Your task to perform on an android device: see tabs open on other devices in the chrome app Image 0: 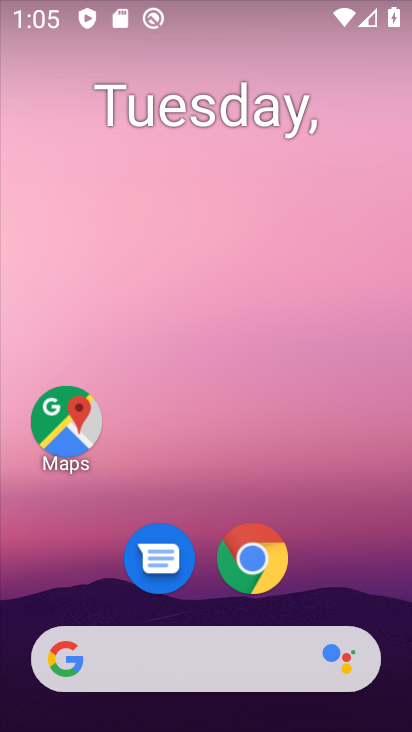
Step 0: click (261, 555)
Your task to perform on an android device: see tabs open on other devices in the chrome app Image 1: 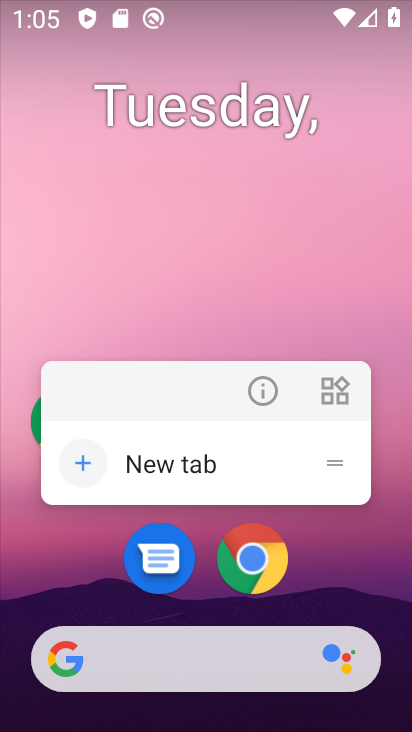
Step 1: click (265, 559)
Your task to perform on an android device: see tabs open on other devices in the chrome app Image 2: 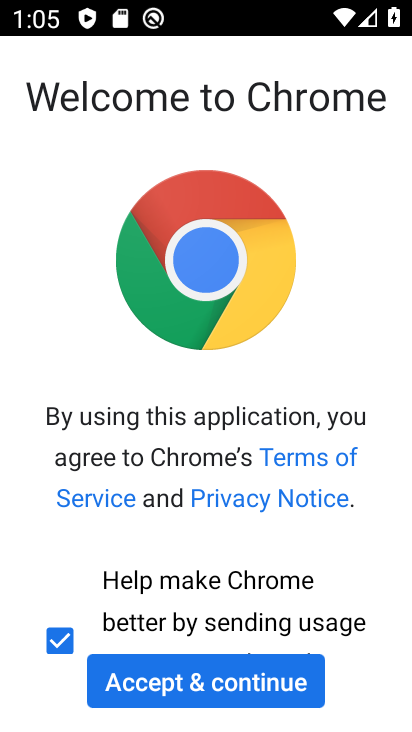
Step 2: click (200, 689)
Your task to perform on an android device: see tabs open on other devices in the chrome app Image 3: 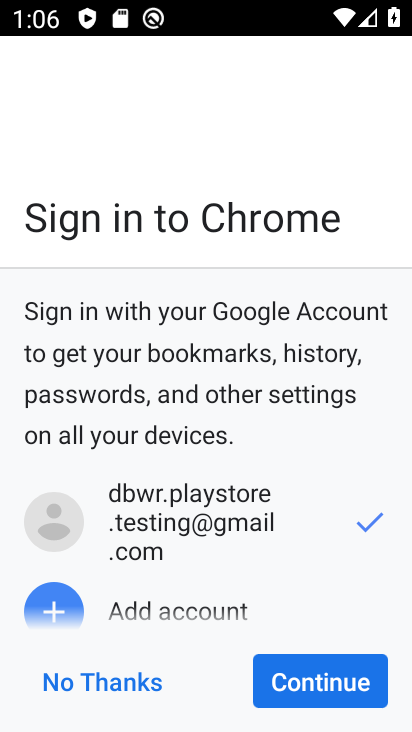
Step 3: click (332, 678)
Your task to perform on an android device: see tabs open on other devices in the chrome app Image 4: 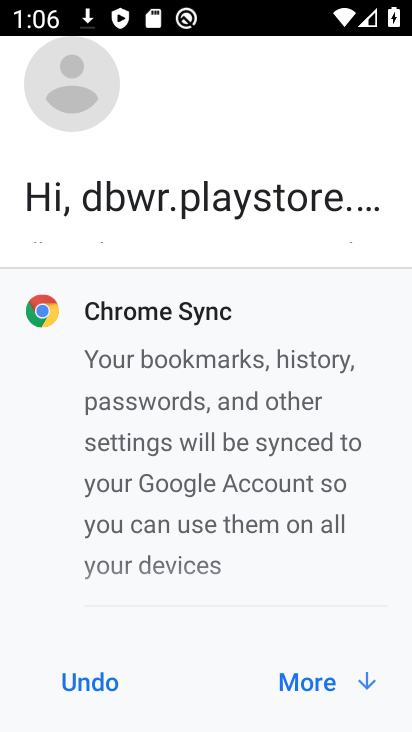
Step 4: click (322, 681)
Your task to perform on an android device: see tabs open on other devices in the chrome app Image 5: 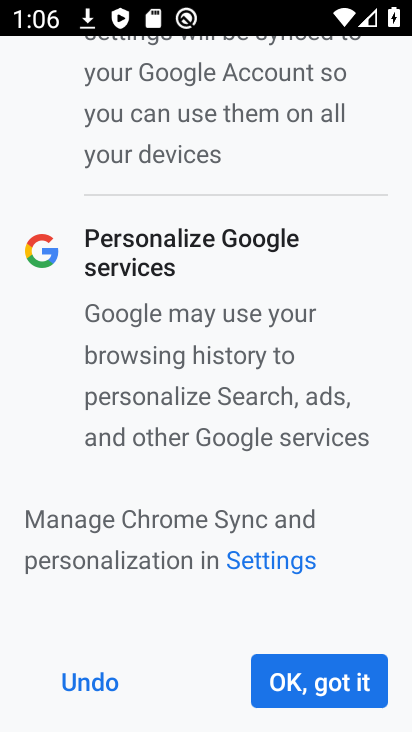
Step 5: click (343, 679)
Your task to perform on an android device: see tabs open on other devices in the chrome app Image 6: 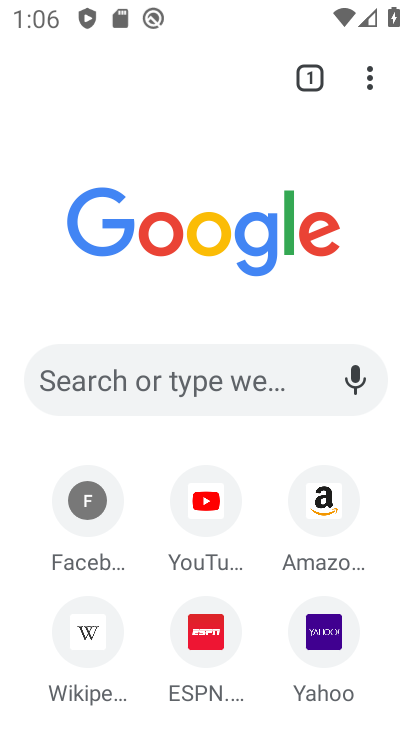
Step 6: task complete